Your task to perform on an android device: Search for handmade jewelry on Etsy. Image 0: 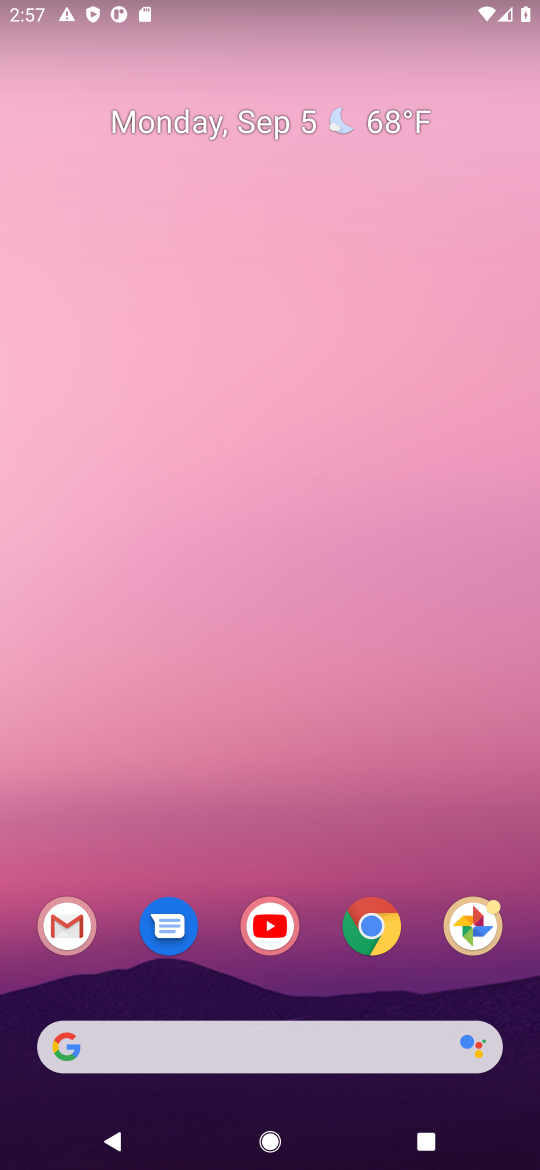
Step 0: click (381, 924)
Your task to perform on an android device: Search for handmade jewelry on Etsy. Image 1: 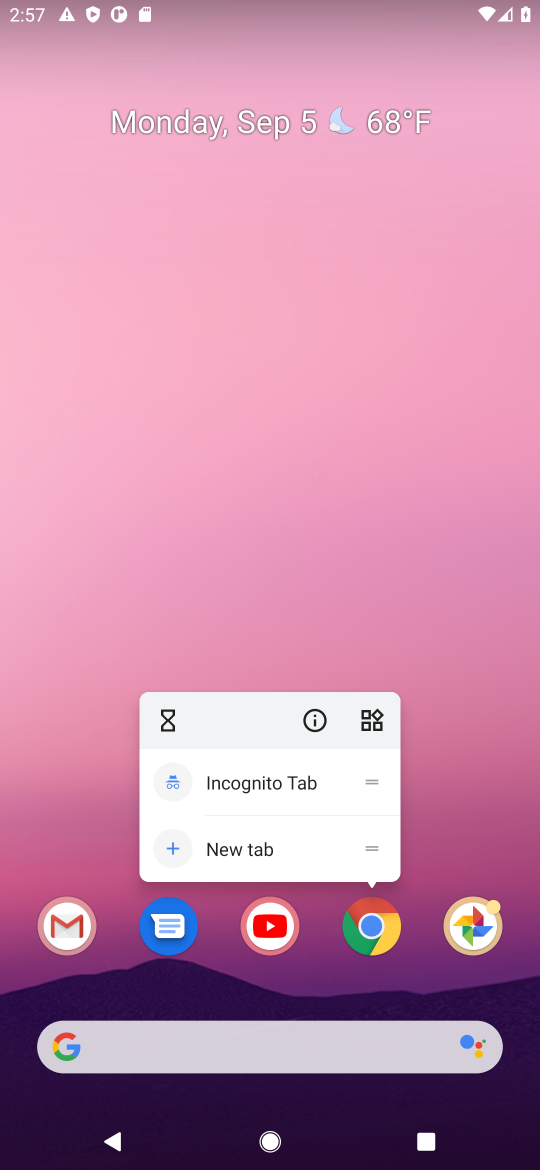
Step 1: click (381, 924)
Your task to perform on an android device: Search for handmade jewelry on Etsy. Image 2: 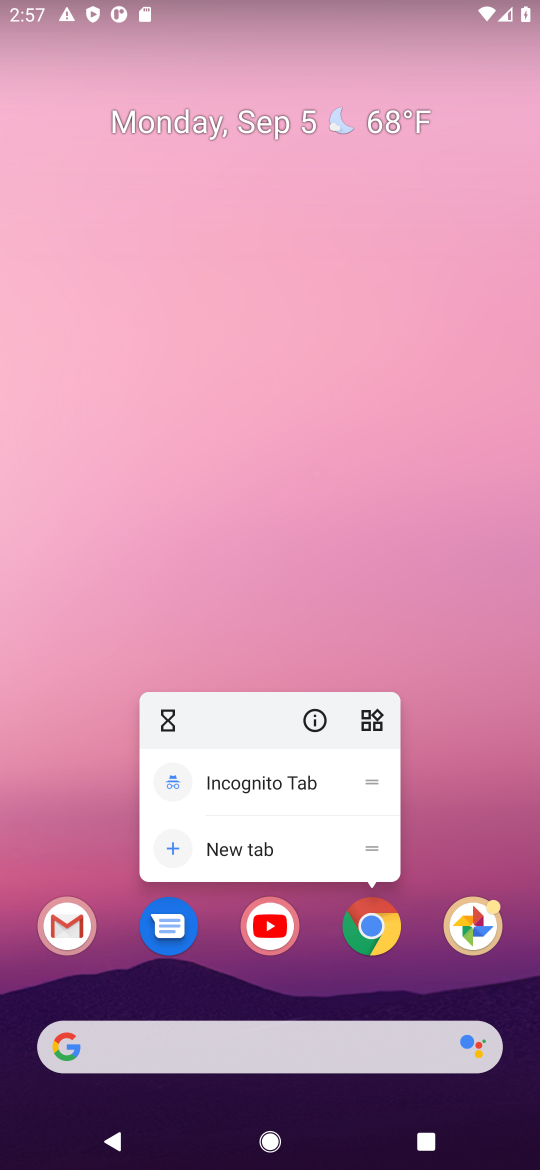
Step 2: click (381, 924)
Your task to perform on an android device: Search for handmade jewelry on Etsy. Image 3: 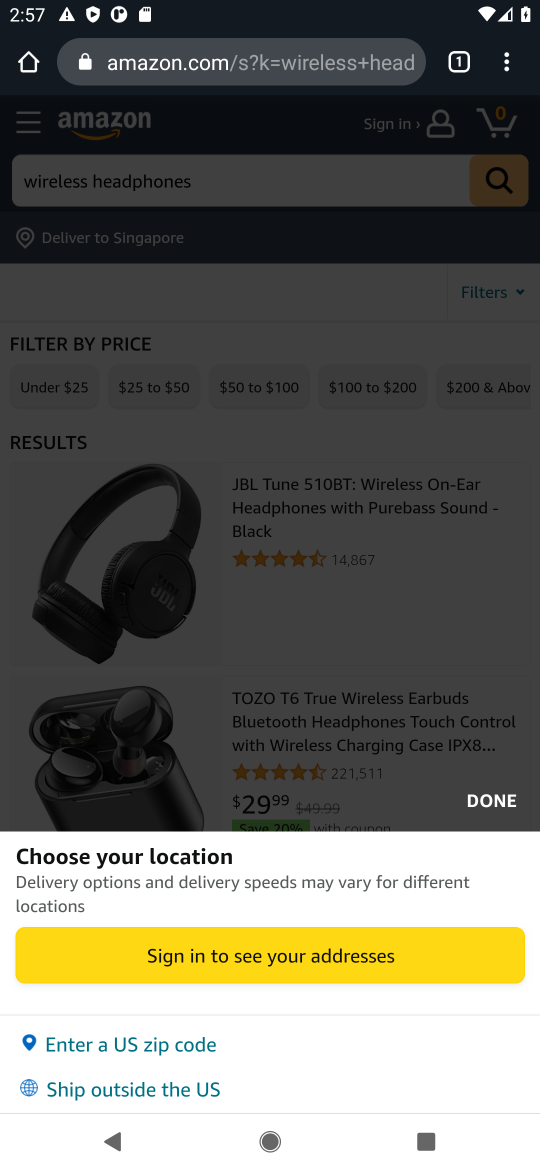
Step 3: click (480, 798)
Your task to perform on an android device: Search for handmade jewelry on Etsy. Image 4: 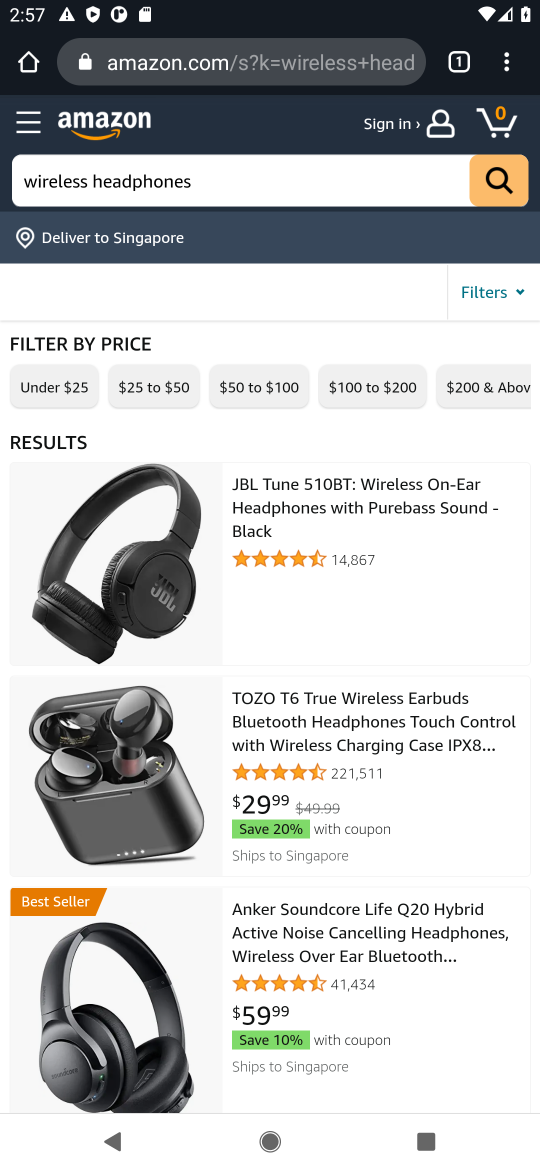
Step 4: click (248, 49)
Your task to perform on an android device: Search for handmade jewelry on Etsy. Image 5: 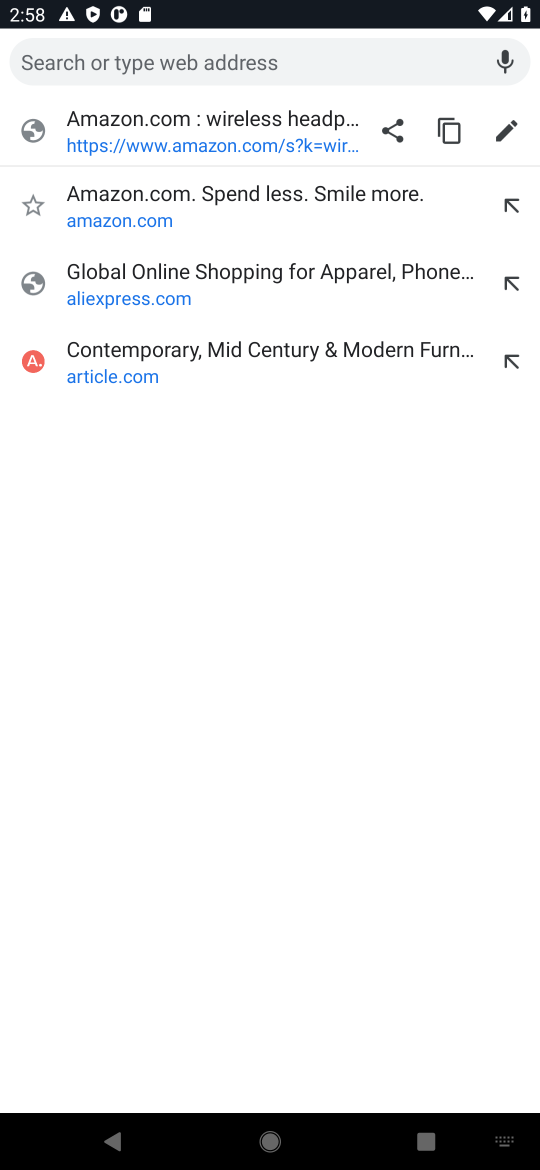
Step 5: type "etsy"
Your task to perform on an android device: Search for handmade jewelry on Etsy. Image 6: 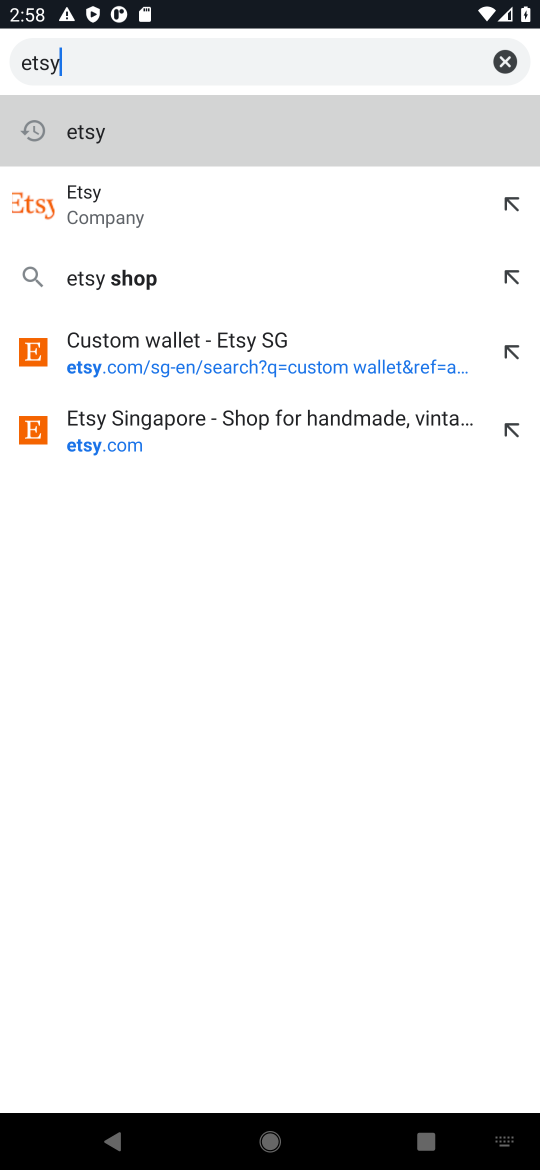
Step 6: click (142, 201)
Your task to perform on an android device: Search for handmade jewelry on Etsy. Image 7: 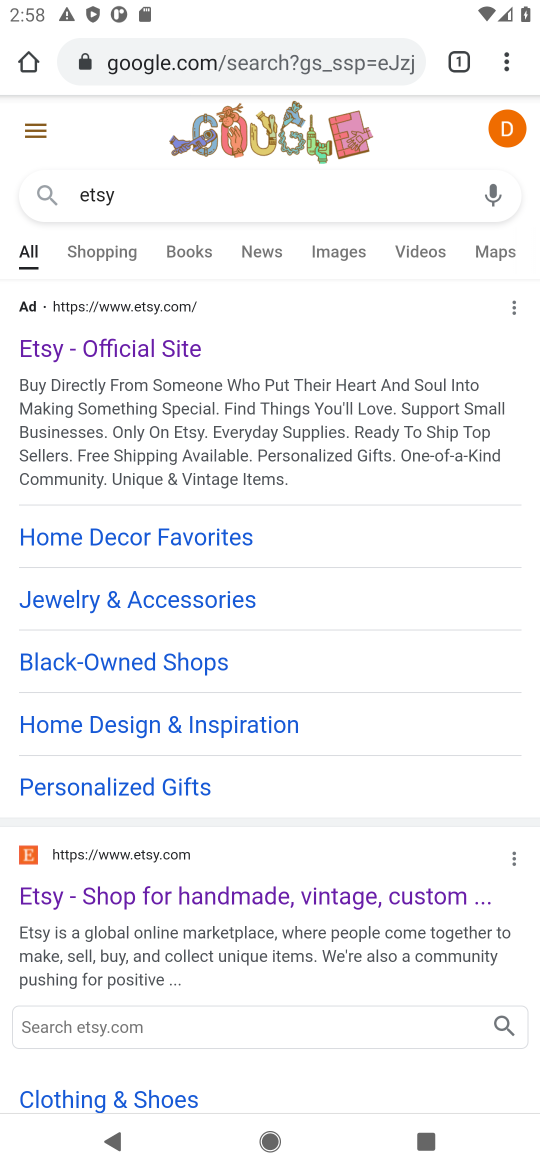
Step 7: click (189, 894)
Your task to perform on an android device: Search for handmade jewelry on Etsy. Image 8: 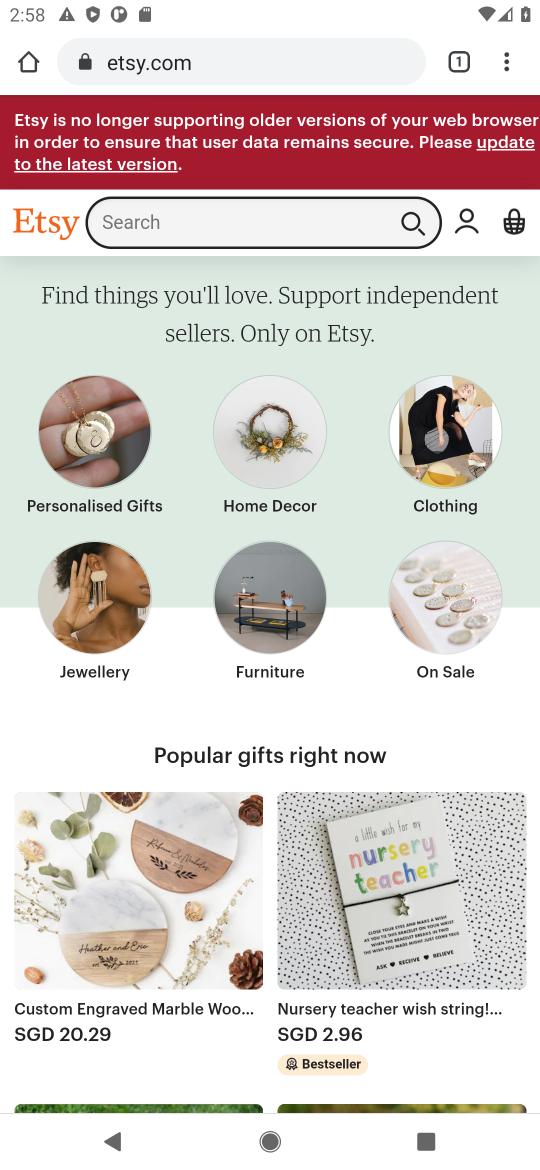
Step 8: click (244, 220)
Your task to perform on an android device: Search for handmade jewelry on Etsy. Image 9: 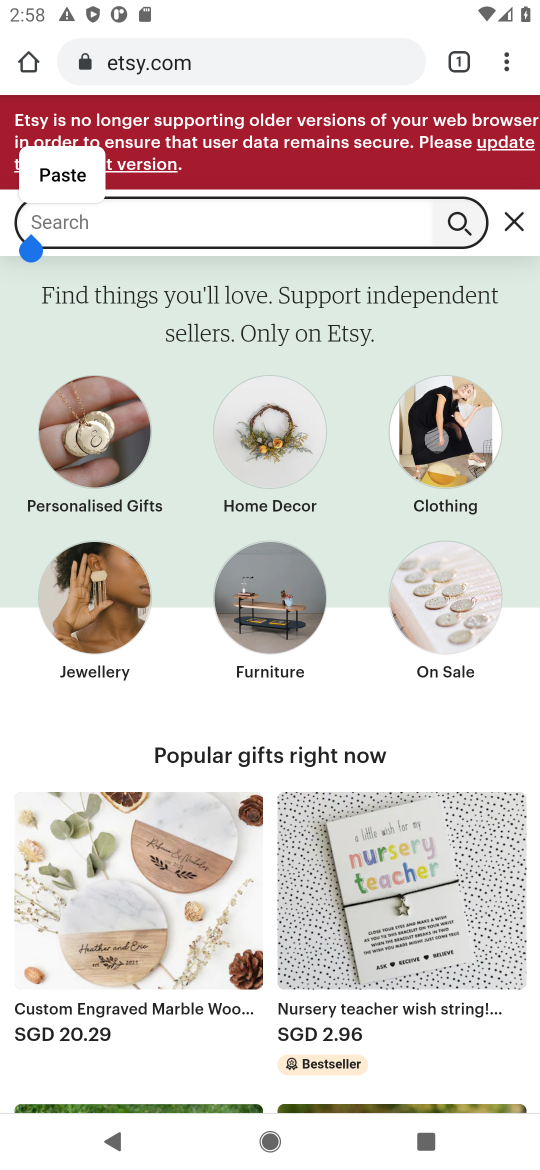
Step 9: type "handmade jewelry"
Your task to perform on an android device: Search for handmade jewelry on Etsy. Image 10: 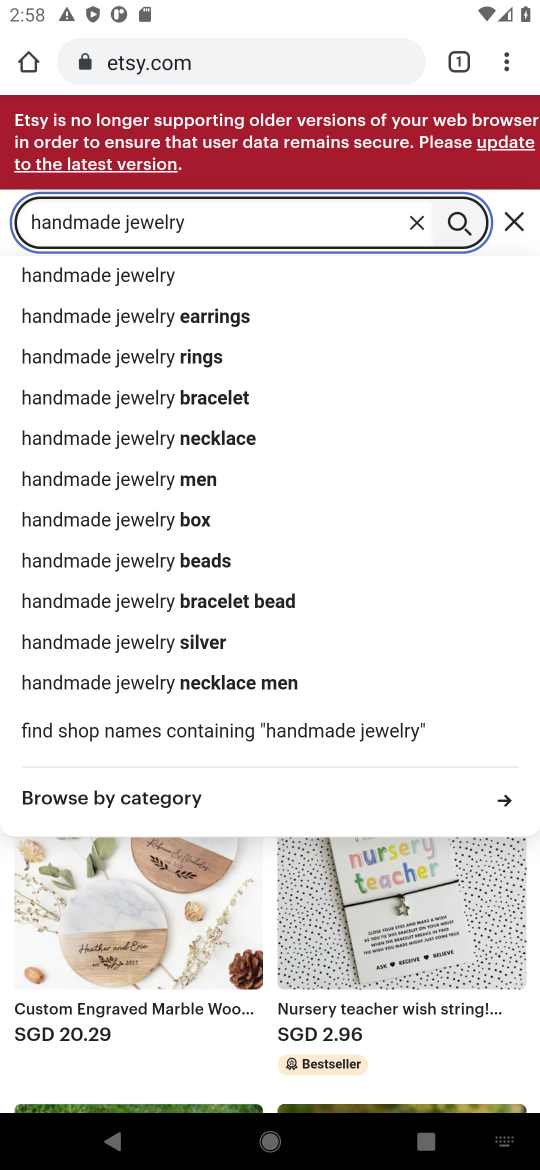
Step 10: click (140, 274)
Your task to perform on an android device: Search for handmade jewelry on Etsy. Image 11: 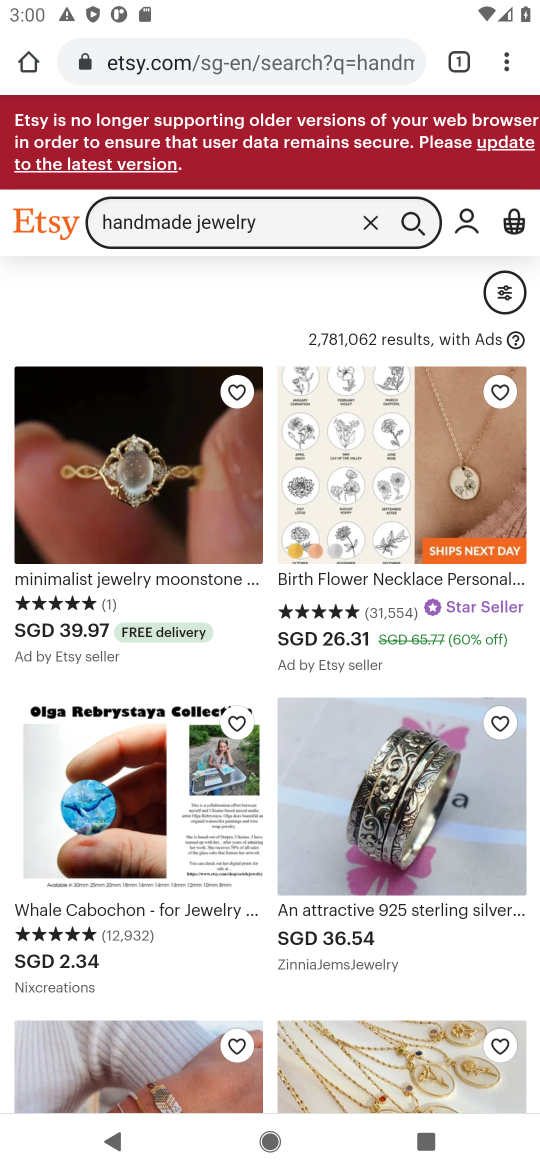
Step 11: task complete